Your task to perform on an android device: turn off wifi Image 0: 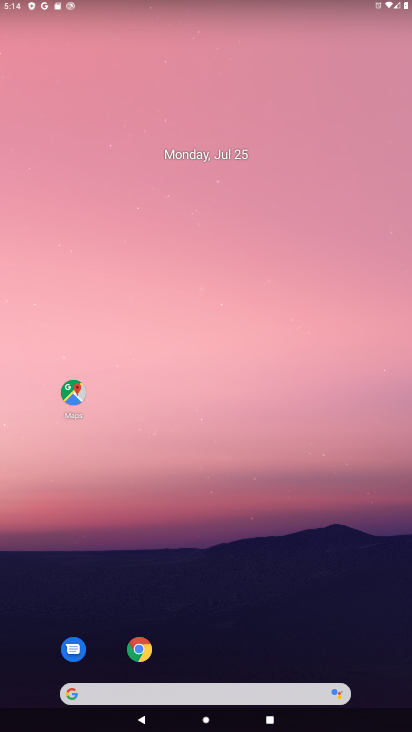
Step 0: click (330, 135)
Your task to perform on an android device: turn off wifi Image 1: 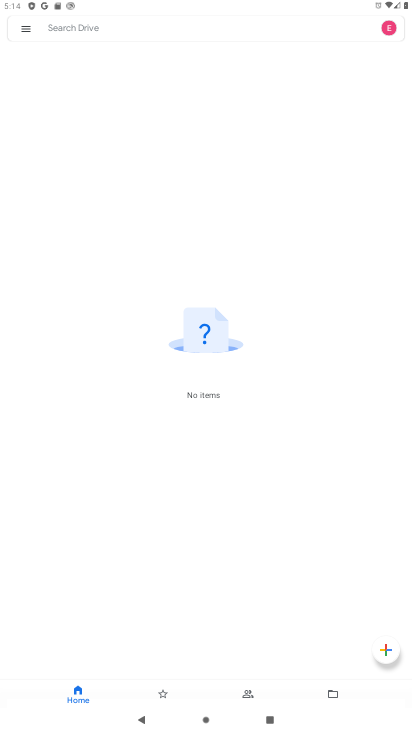
Step 1: press home button
Your task to perform on an android device: turn off wifi Image 2: 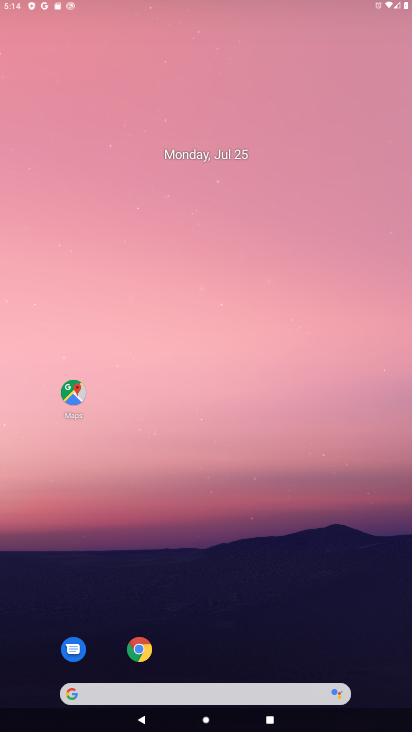
Step 2: drag from (192, 664) to (288, 47)
Your task to perform on an android device: turn off wifi Image 3: 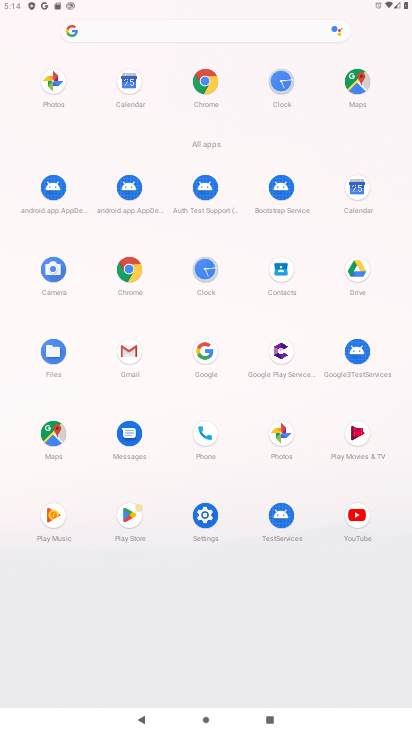
Step 3: click (213, 525)
Your task to perform on an android device: turn off wifi Image 4: 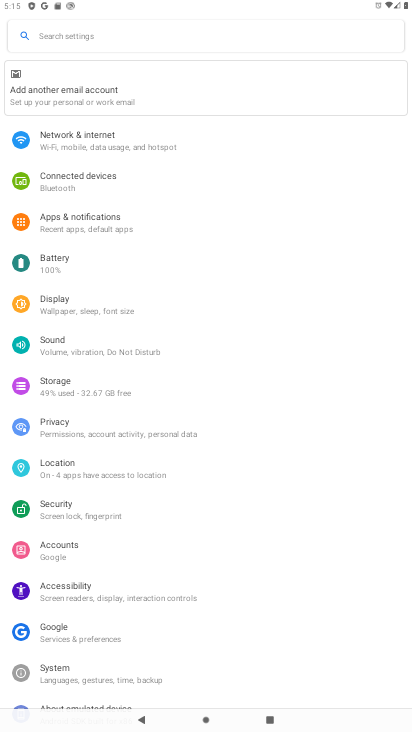
Step 4: click (56, 136)
Your task to perform on an android device: turn off wifi Image 5: 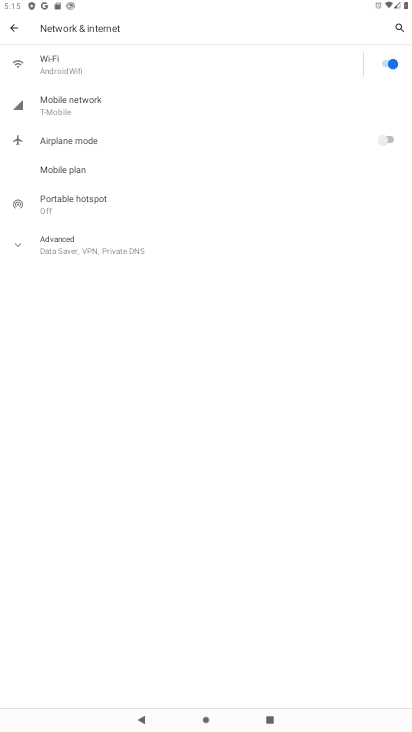
Step 5: click (378, 63)
Your task to perform on an android device: turn off wifi Image 6: 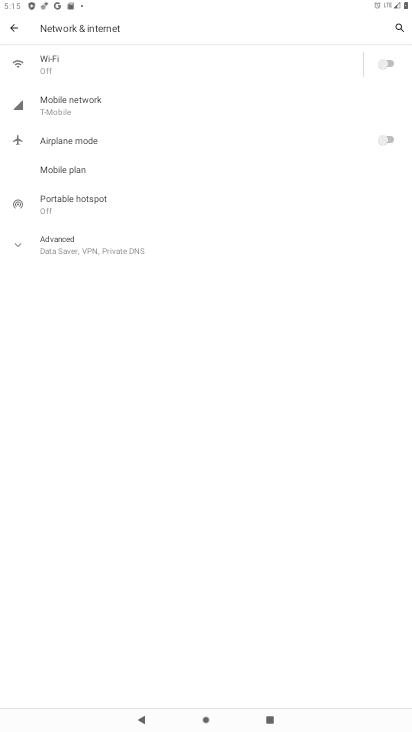
Step 6: task complete